Your task to perform on an android device: Open internet settings Image 0: 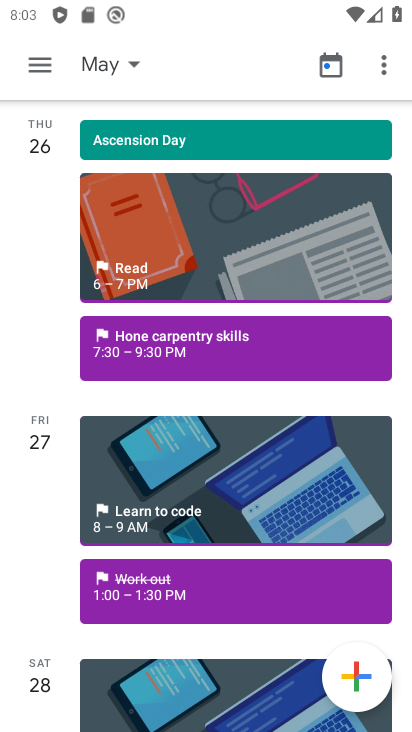
Step 0: press home button
Your task to perform on an android device: Open internet settings Image 1: 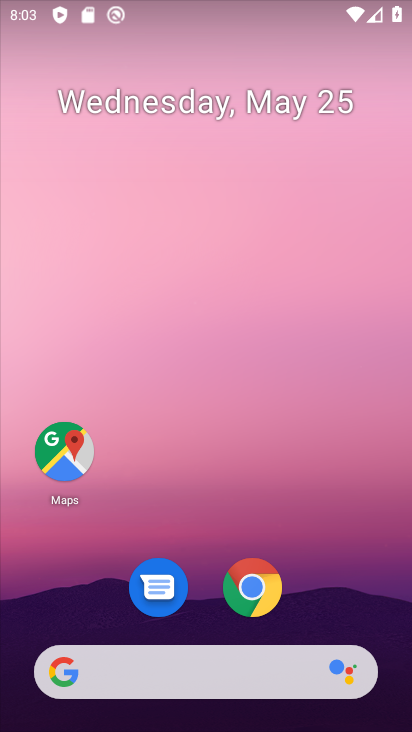
Step 1: drag from (256, 463) to (360, 38)
Your task to perform on an android device: Open internet settings Image 2: 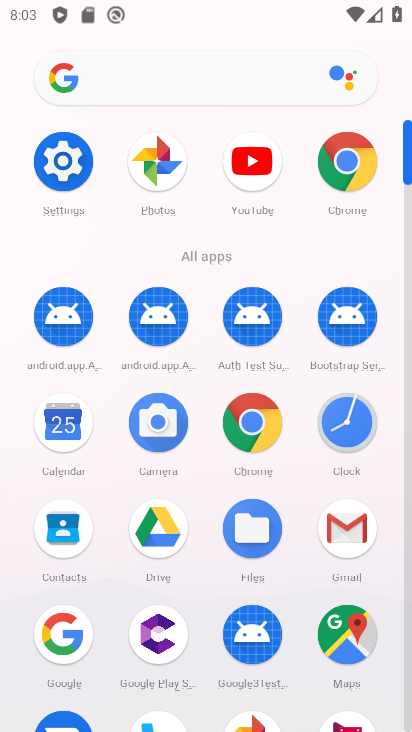
Step 2: click (66, 154)
Your task to perform on an android device: Open internet settings Image 3: 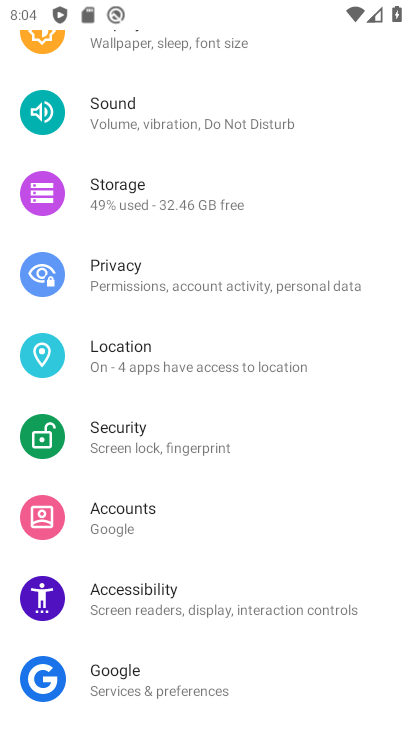
Step 3: drag from (344, 132) to (294, 562)
Your task to perform on an android device: Open internet settings Image 4: 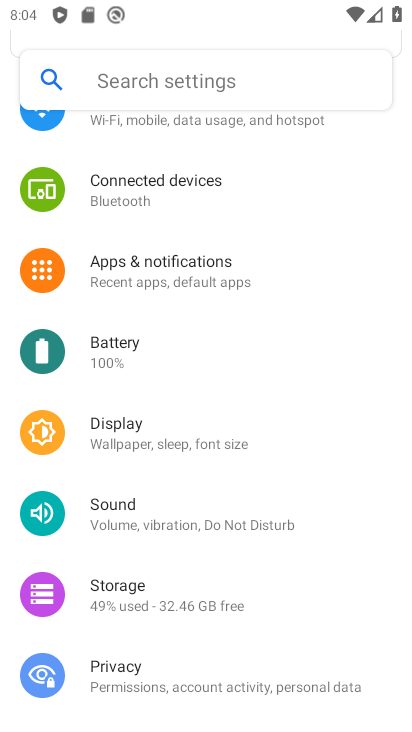
Step 4: drag from (334, 206) to (263, 650)
Your task to perform on an android device: Open internet settings Image 5: 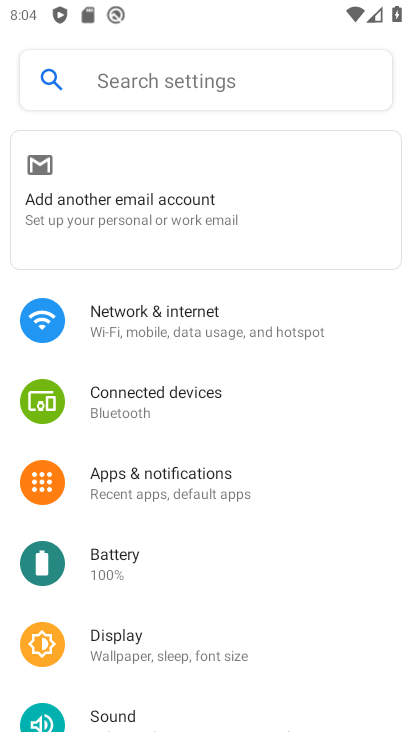
Step 5: click (156, 321)
Your task to perform on an android device: Open internet settings Image 6: 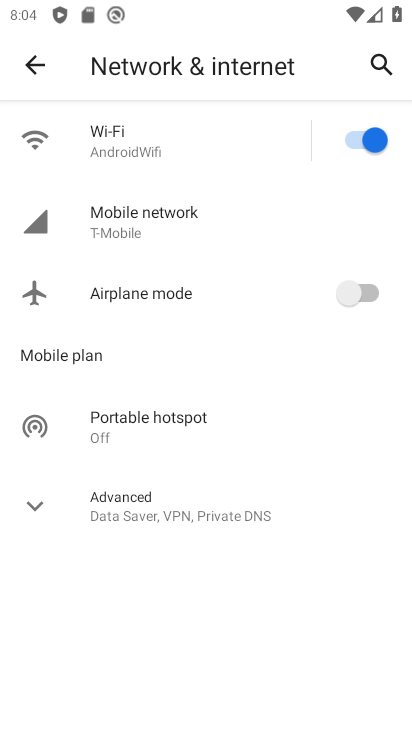
Step 6: task complete